Your task to perform on an android device: turn off data saver in the chrome app Image 0: 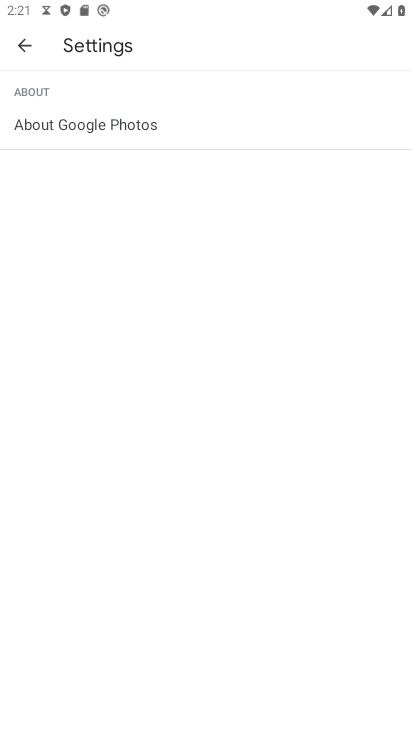
Step 0: press home button
Your task to perform on an android device: turn off data saver in the chrome app Image 1: 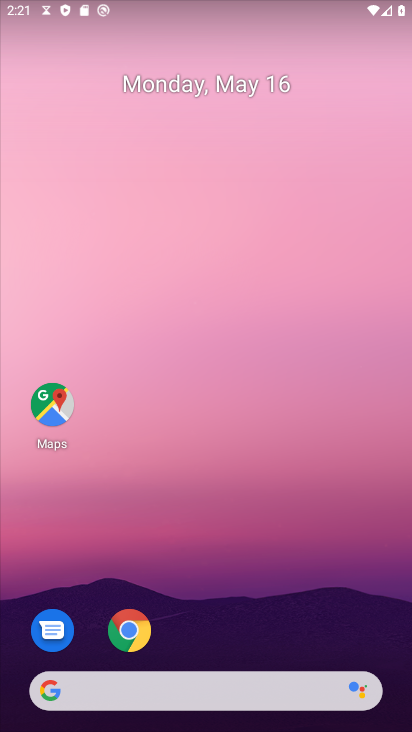
Step 1: click (130, 626)
Your task to perform on an android device: turn off data saver in the chrome app Image 2: 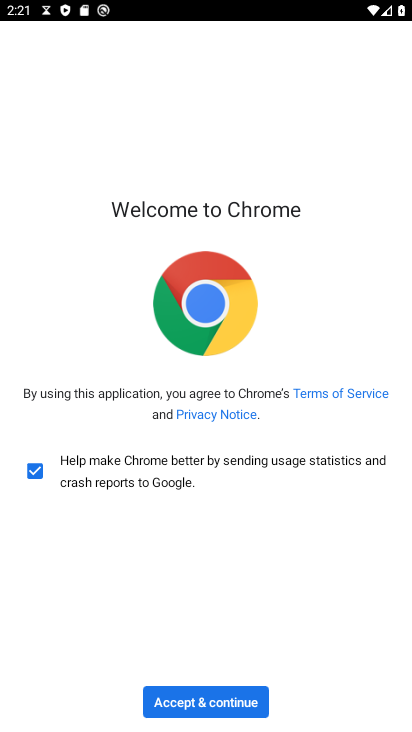
Step 2: click (200, 701)
Your task to perform on an android device: turn off data saver in the chrome app Image 3: 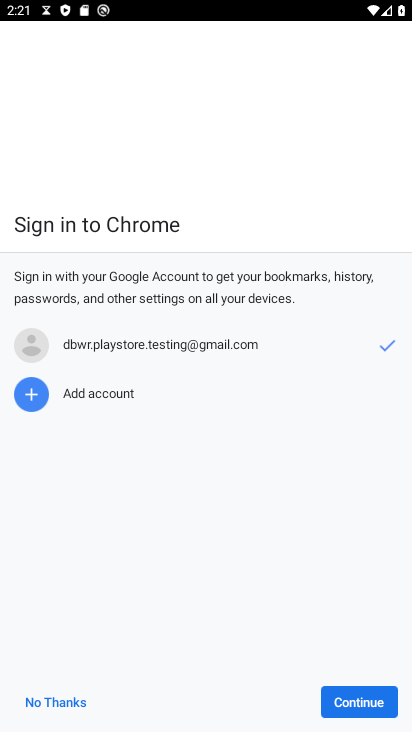
Step 3: click (358, 703)
Your task to perform on an android device: turn off data saver in the chrome app Image 4: 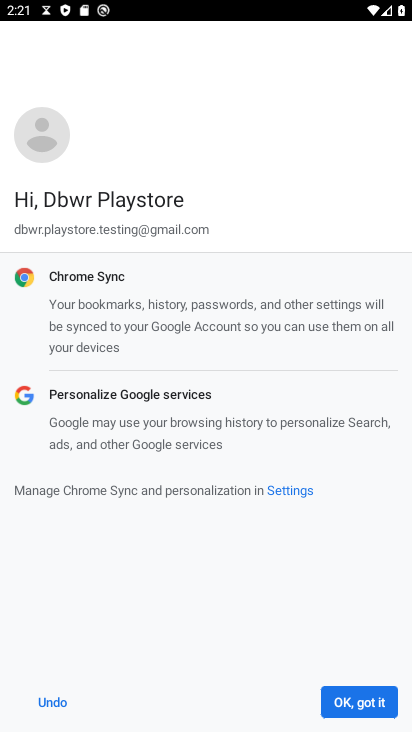
Step 4: click (358, 703)
Your task to perform on an android device: turn off data saver in the chrome app Image 5: 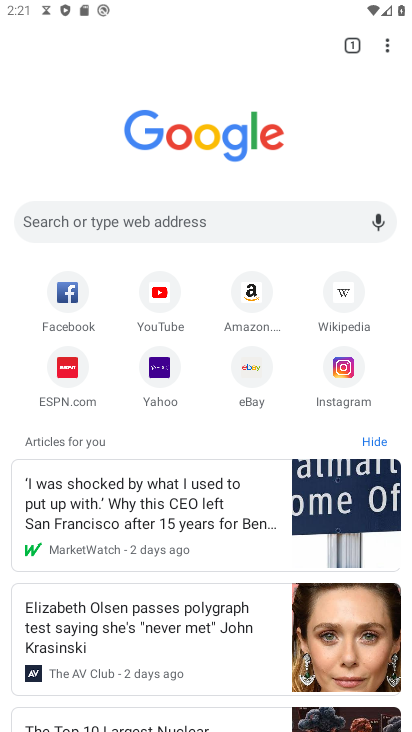
Step 5: click (387, 37)
Your task to perform on an android device: turn off data saver in the chrome app Image 6: 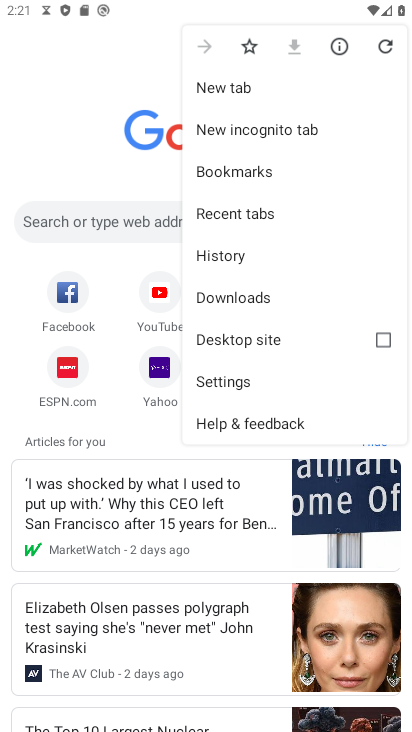
Step 6: click (252, 381)
Your task to perform on an android device: turn off data saver in the chrome app Image 7: 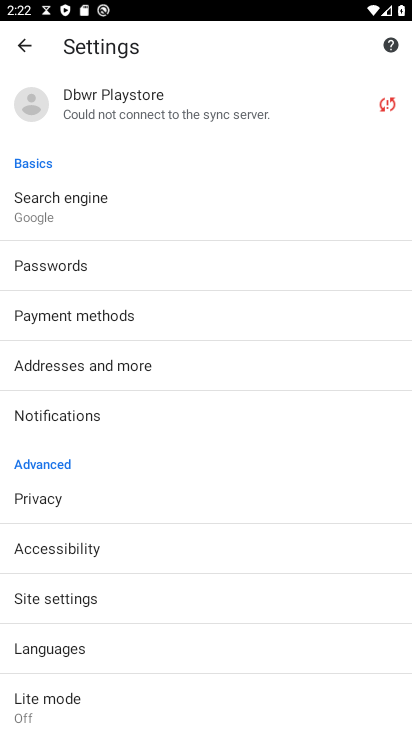
Step 7: click (104, 695)
Your task to perform on an android device: turn off data saver in the chrome app Image 8: 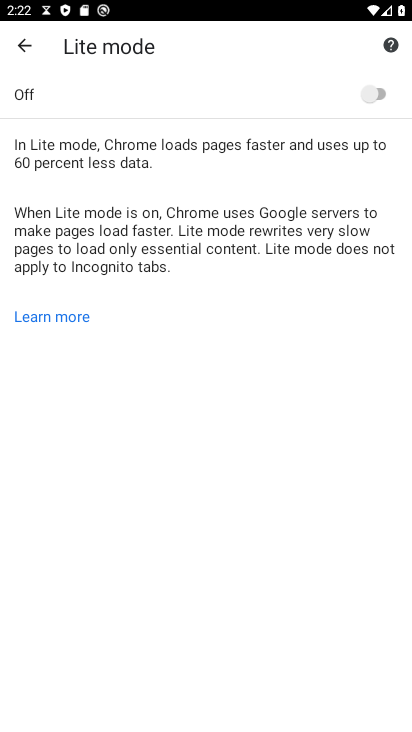
Step 8: task complete